Your task to perform on an android device: Open the Play Movies app and select the watchlist tab. Image 0: 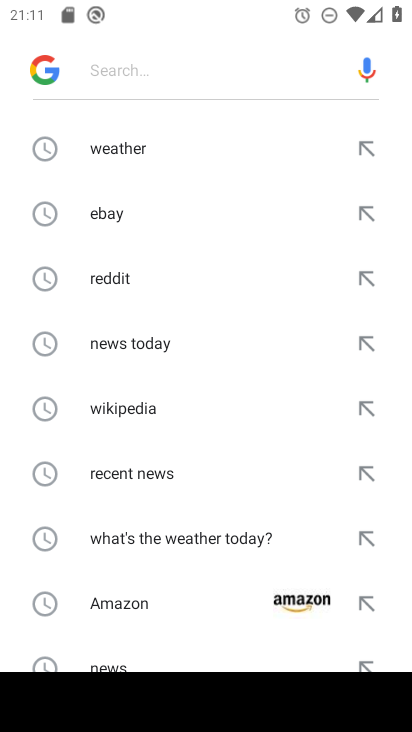
Step 0: press home button
Your task to perform on an android device: Open the Play Movies app and select the watchlist tab. Image 1: 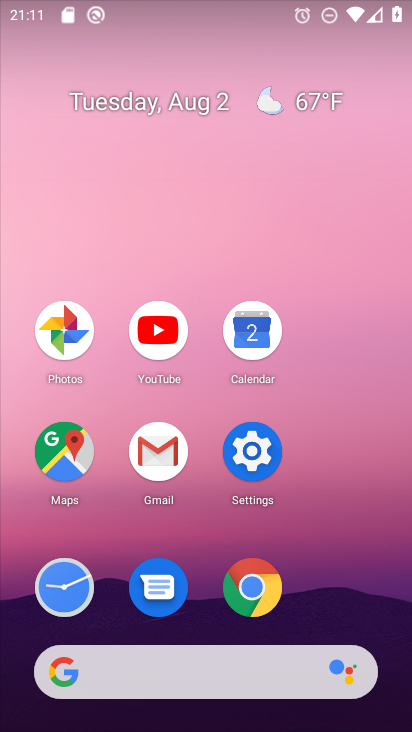
Step 1: drag from (310, 594) to (352, 32)
Your task to perform on an android device: Open the Play Movies app and select the watchlist tab. Image 2: 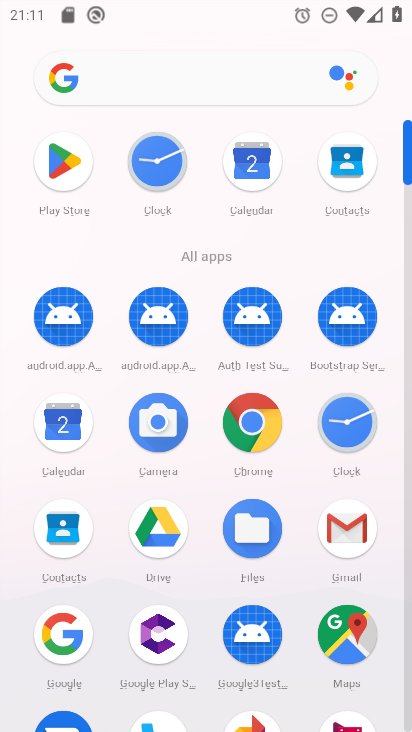
Step 2: drag from (196, 606) to (181, 139)
Your task to perform on an android device: Open the Play Movies app and select the watchlist tab. Image 3: 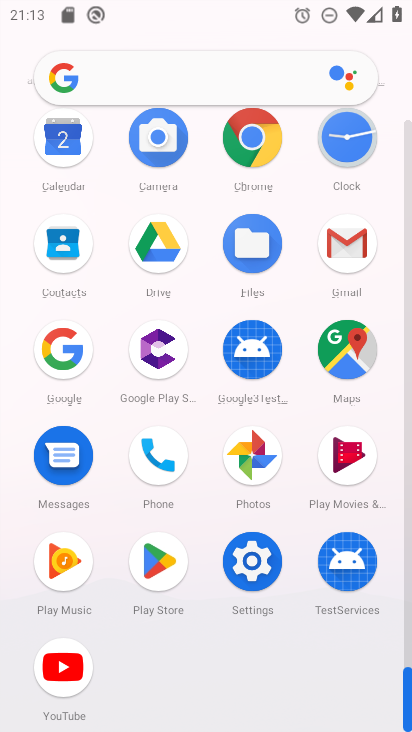
Step 3: click (349, 467)
Your task to perform on an android device: Open the Play Movies app and select the watchlist tab. Image 4: 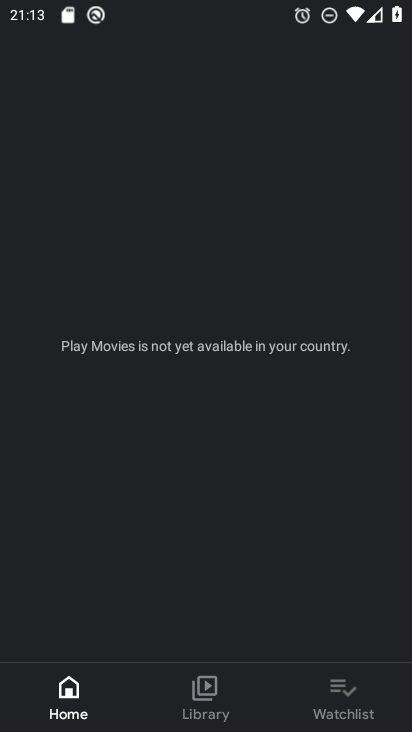
Step 4: click (331, 702)
Your task to perform on an android device: Open the Play Movies app and select the watchlist tab. Image 5: 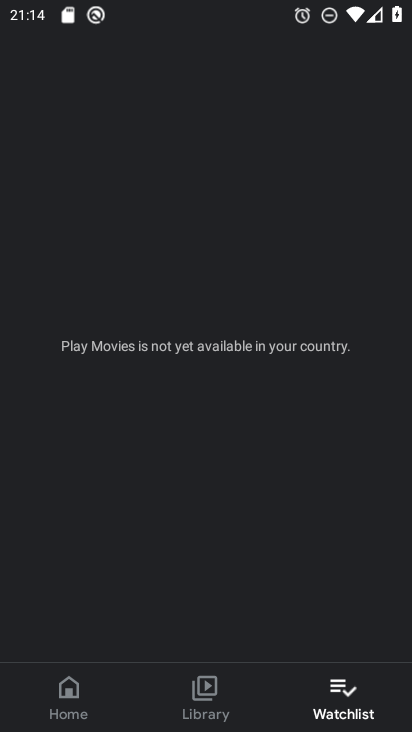
Step 5: task complete